Your task to perform on an android device: Show the shopping cart on costco.com. Search for macbook on costco.com, select the first entry, add it to the cart, then select checkout. Image 0: 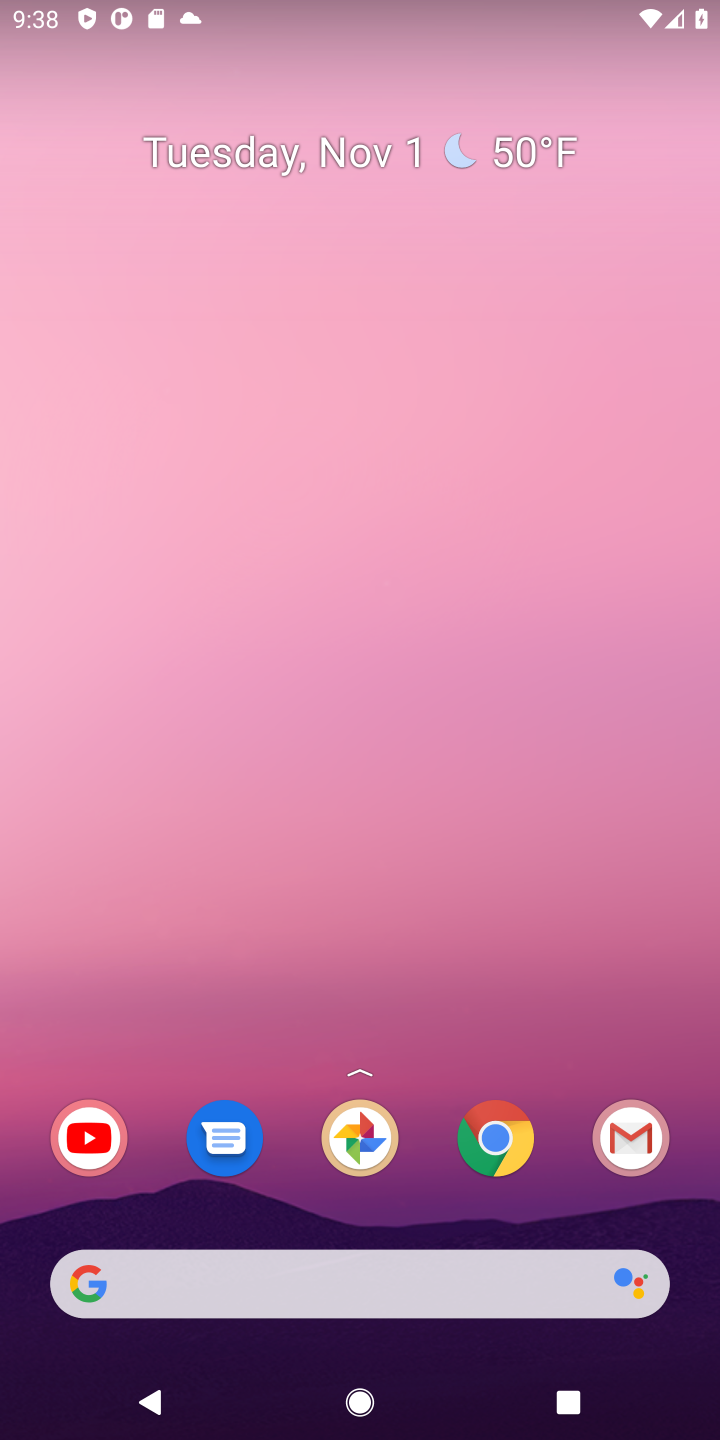
Step 0: click (498, 1141)
Your task to perform on an android device: Show the shopping cart on costco.com. Search for macbook on costco.com, select the first entry, add it to the cart, then select checkout. Image 1: 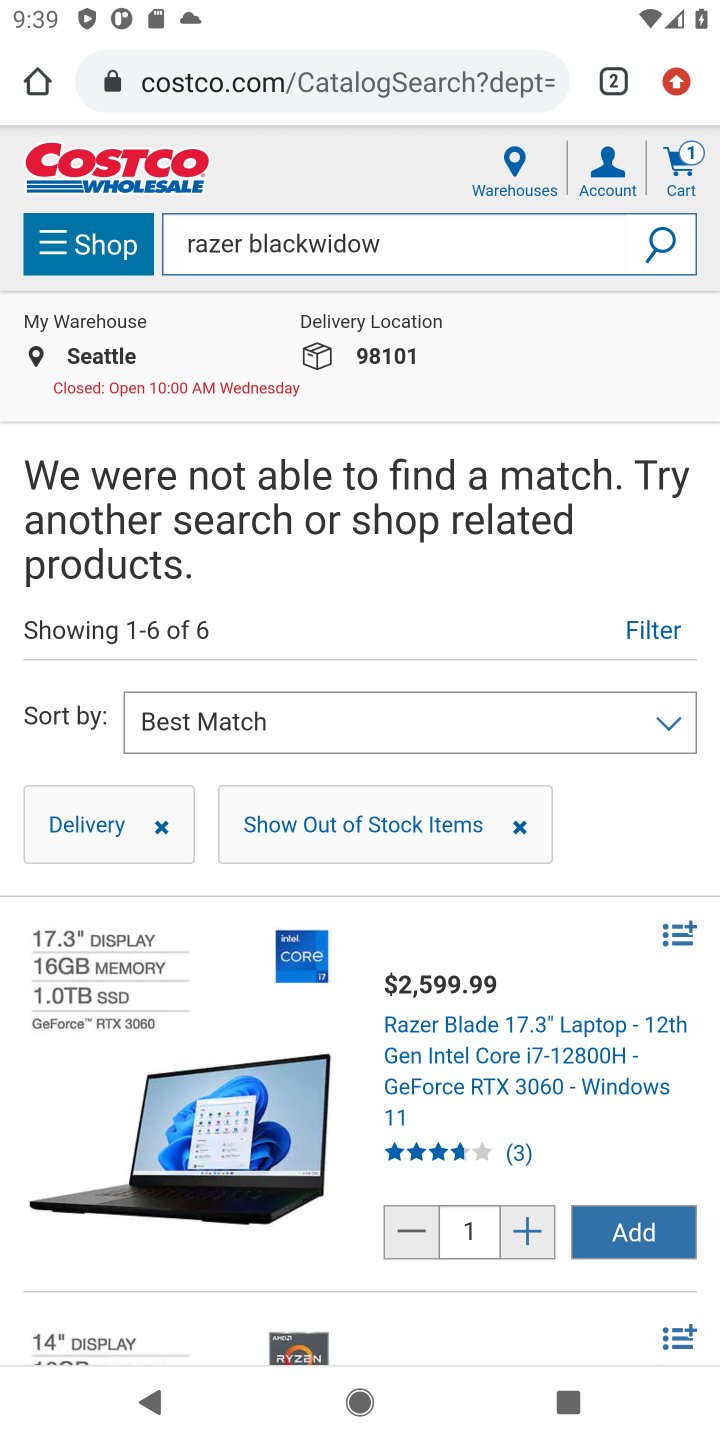
Step 1: click (317, 80)
Your task to perform on an android device: Show the shopping cart on costco.com. Search for macbook on costco.com, select the first entry, add it to the cart, then select checkout. Image 2: 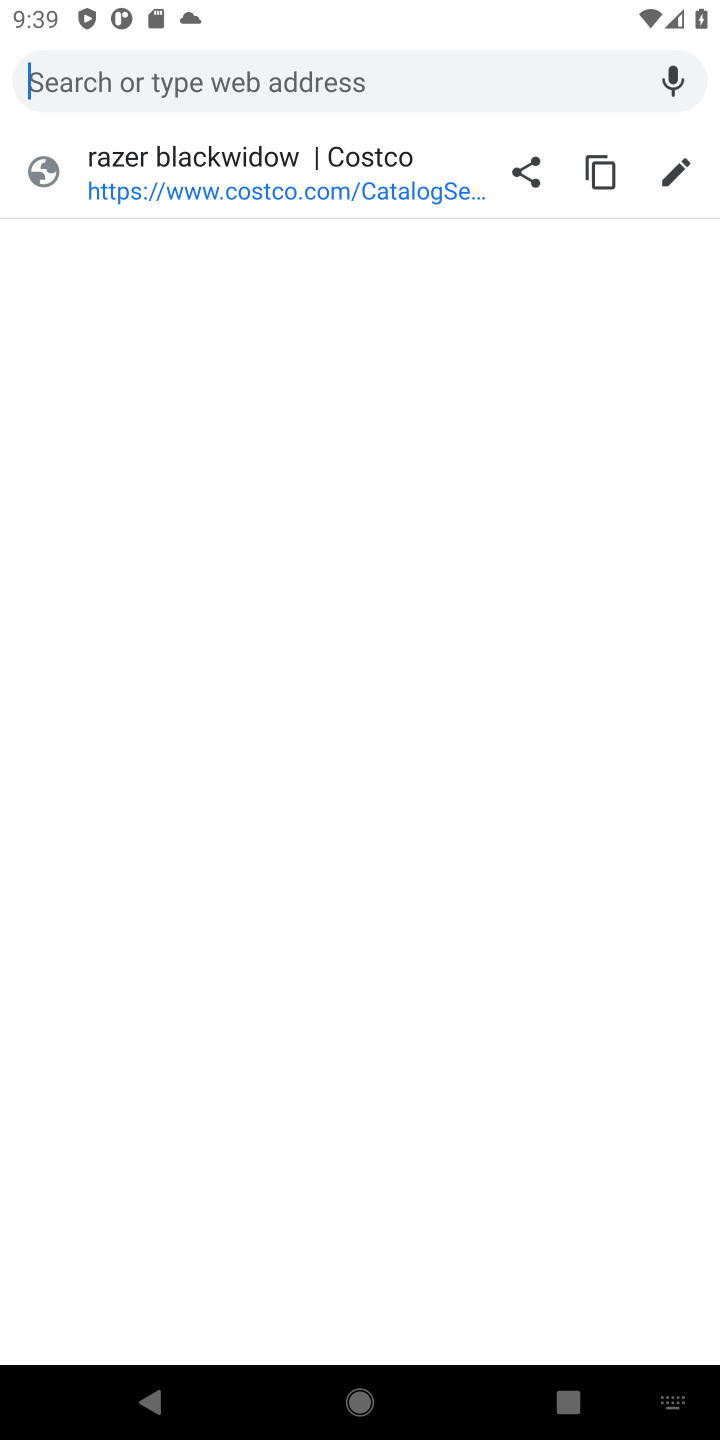
Step 2: type "costco.com"
Your task to perform on an android device: Show the shopping cart on costco.com. Search for macbook on costco.com, select the first entry, add it to the cart, then select checkout. Image 3: 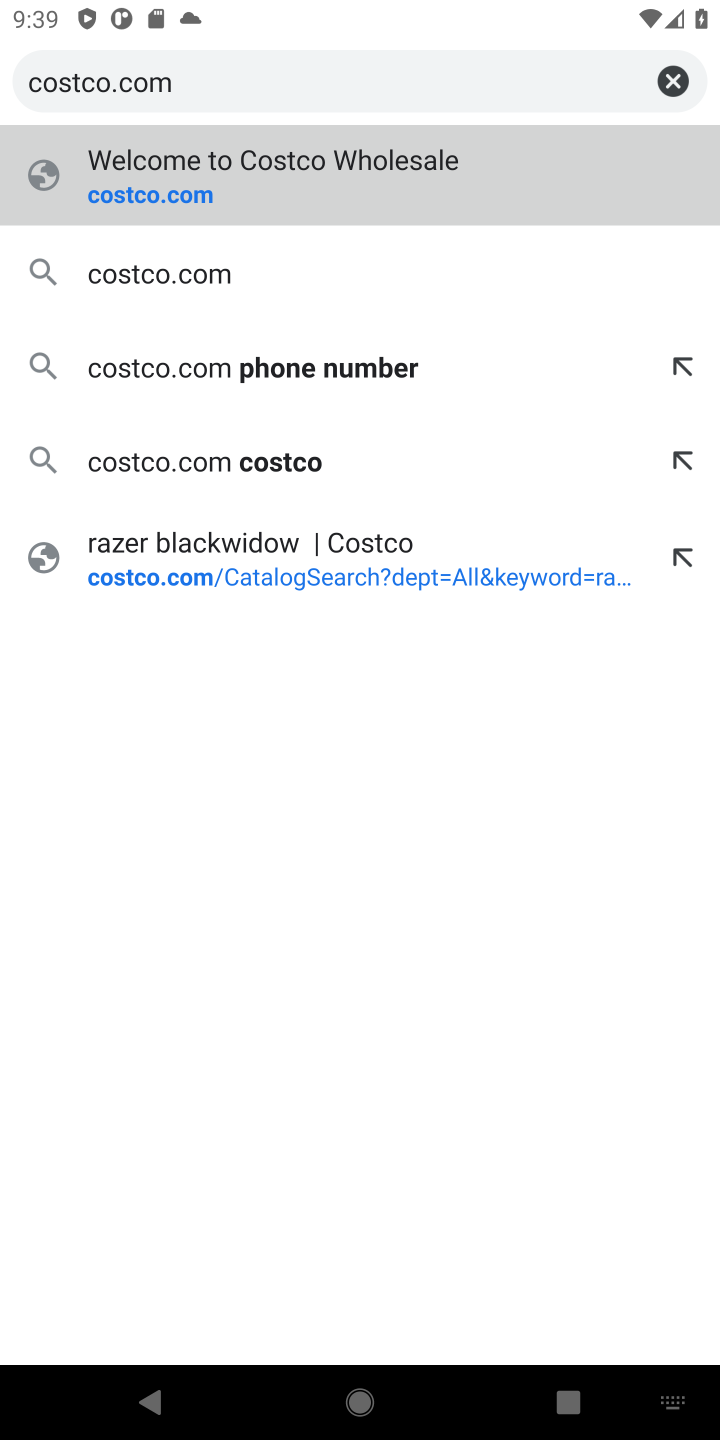
Step 3: click (180, 270)
Your task to perform on an android device: Show the shopping cart on costco.com. Search for macbook on costco.com, select the first entry, add it to the cart, then select checkout. Image 4: 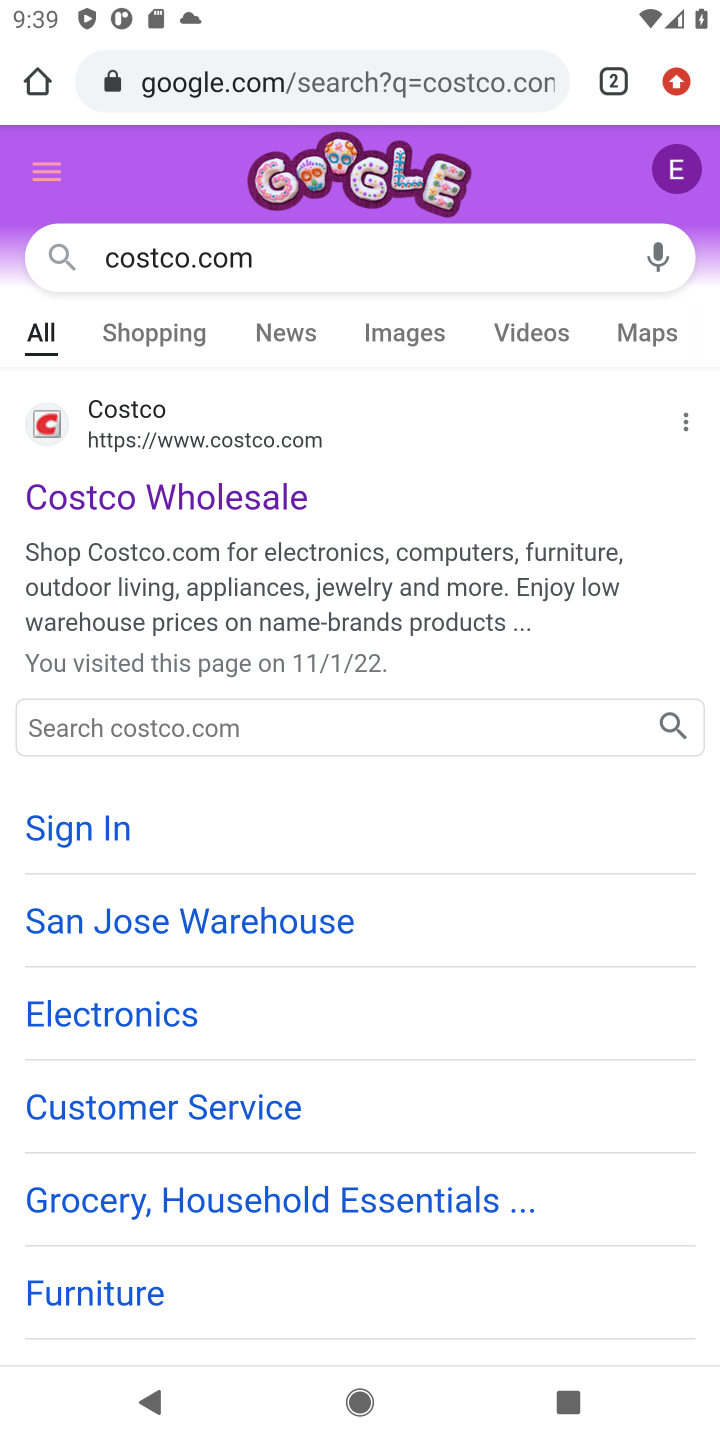
Step 4: click (233, 498)
Your task to perform on an android device: Show the shopping cart on costco.com. Search for macbook on costco.com, select the first entry, add it to the cart, then select checkout. Image 5: 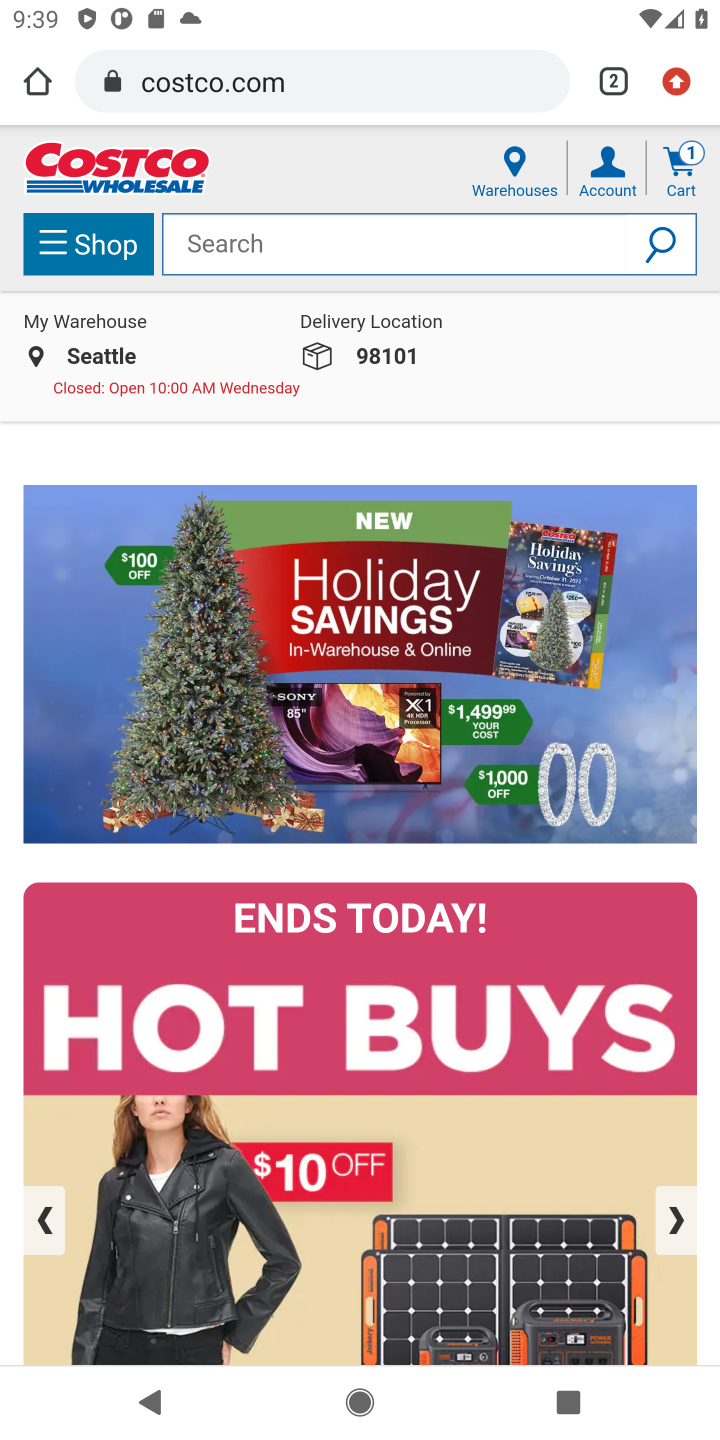
Step 5: click (685, 166)
Your task to perform on an android device: Show the shopping cart on costco.com. Search for macbook on costco.com, select the first entry, add it to the cart, then select checkout. Image 6: 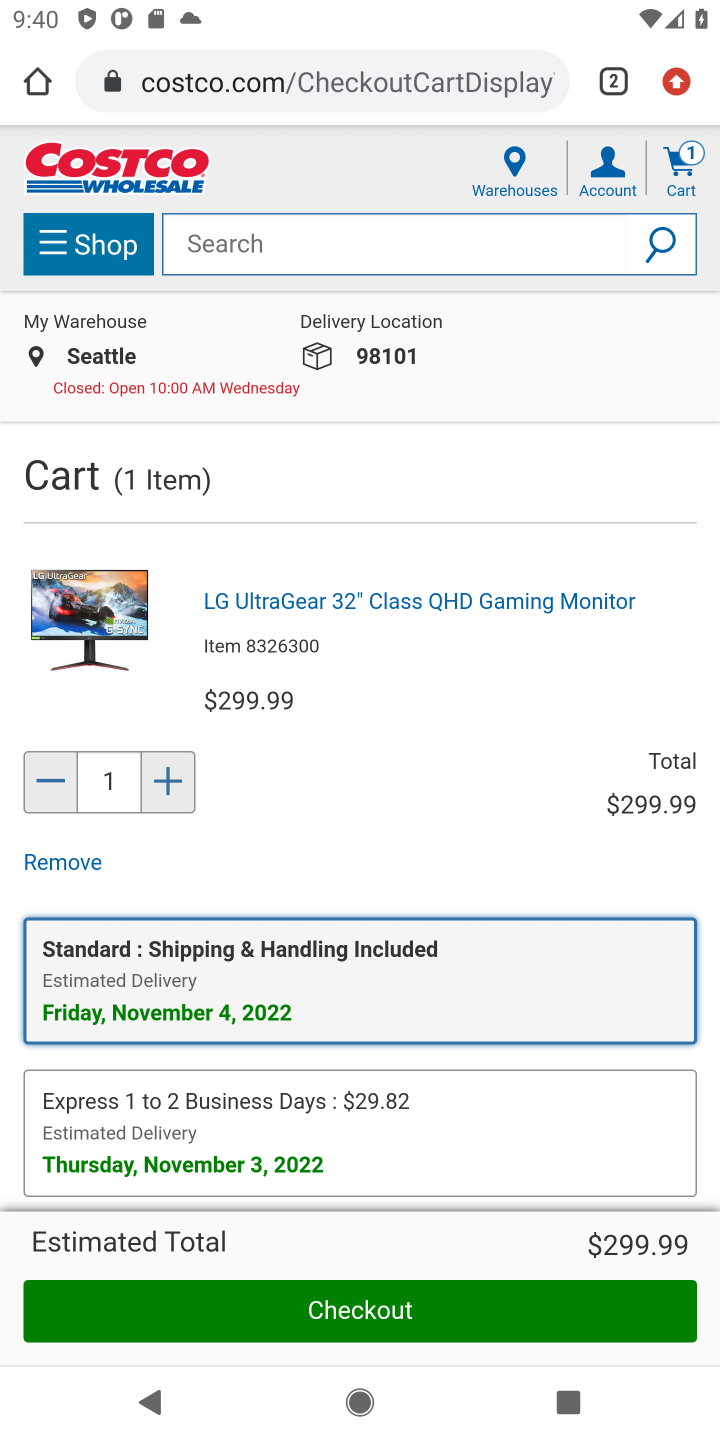
Step 6: click (285, 244)
Your task to perform on an android device: Show the shopping cart on costco.com. Search for macbook on costco.com, select the first entry, add it to the cart, then select checkout. Image 7: 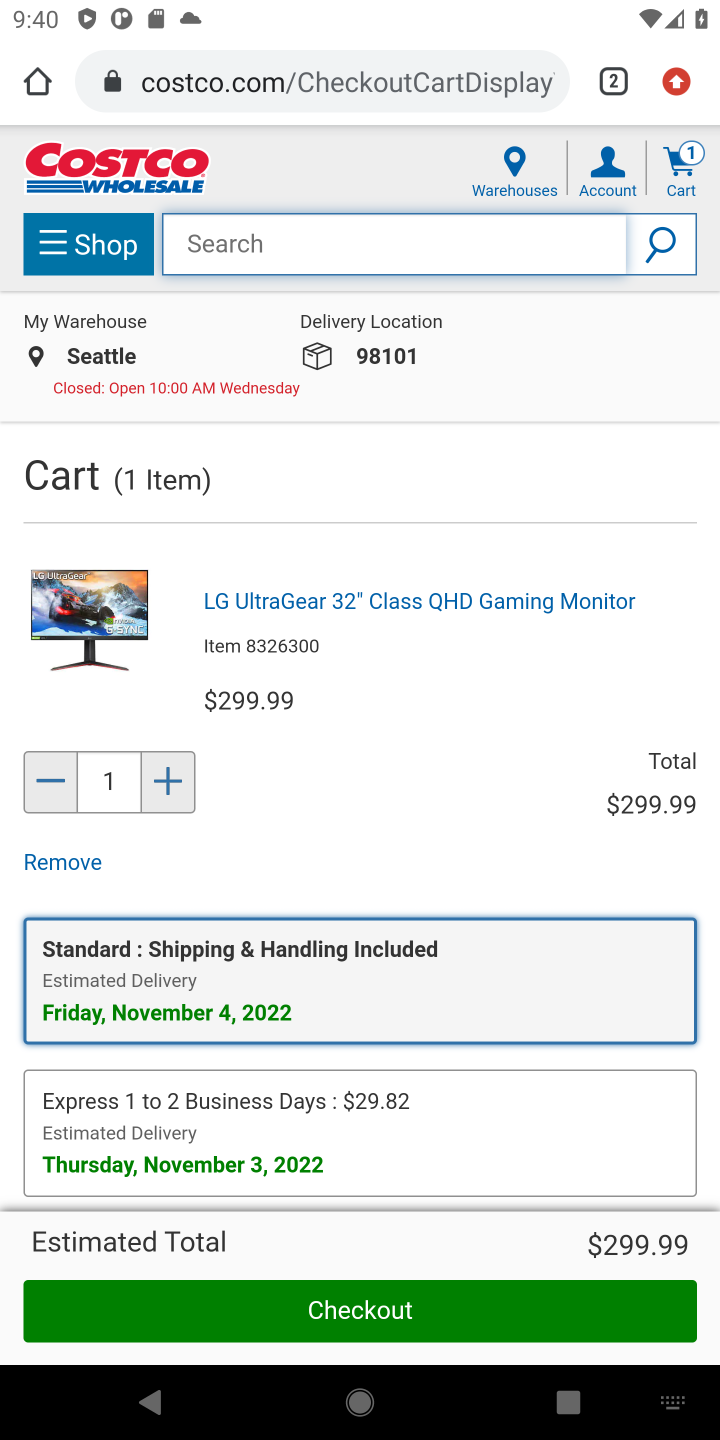
Step 7: type "macbook"
Your task to perform on an android device: Show the shopping cart on costco.com. Search for macbook on costco.com, select the first entry, add it to the cart, then select checkout. Image 8: 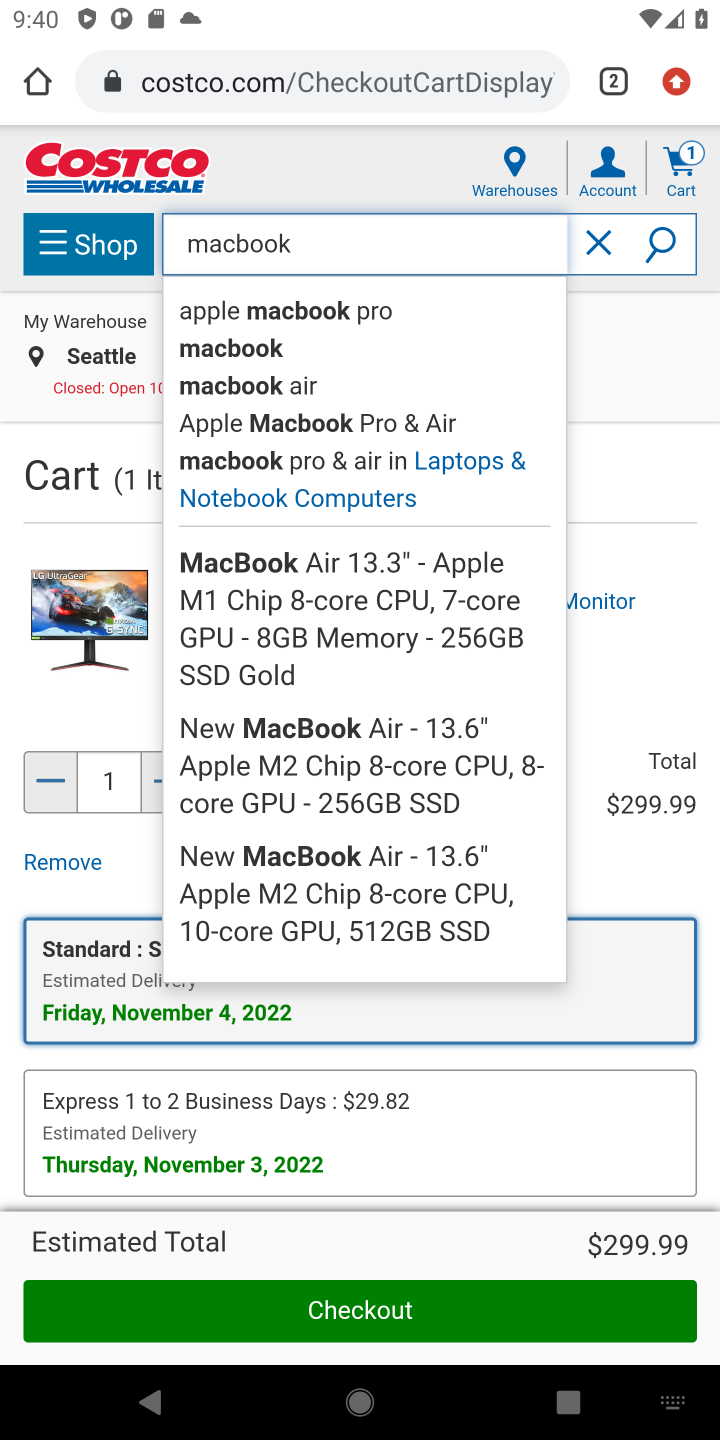
Step 8: click (665, 236)
Your task to perform on an android device: Show the shopping cart on costco.com. Search for macbook on costco.com, select the first entry, add it to the cart, then select checkout. Image 9: 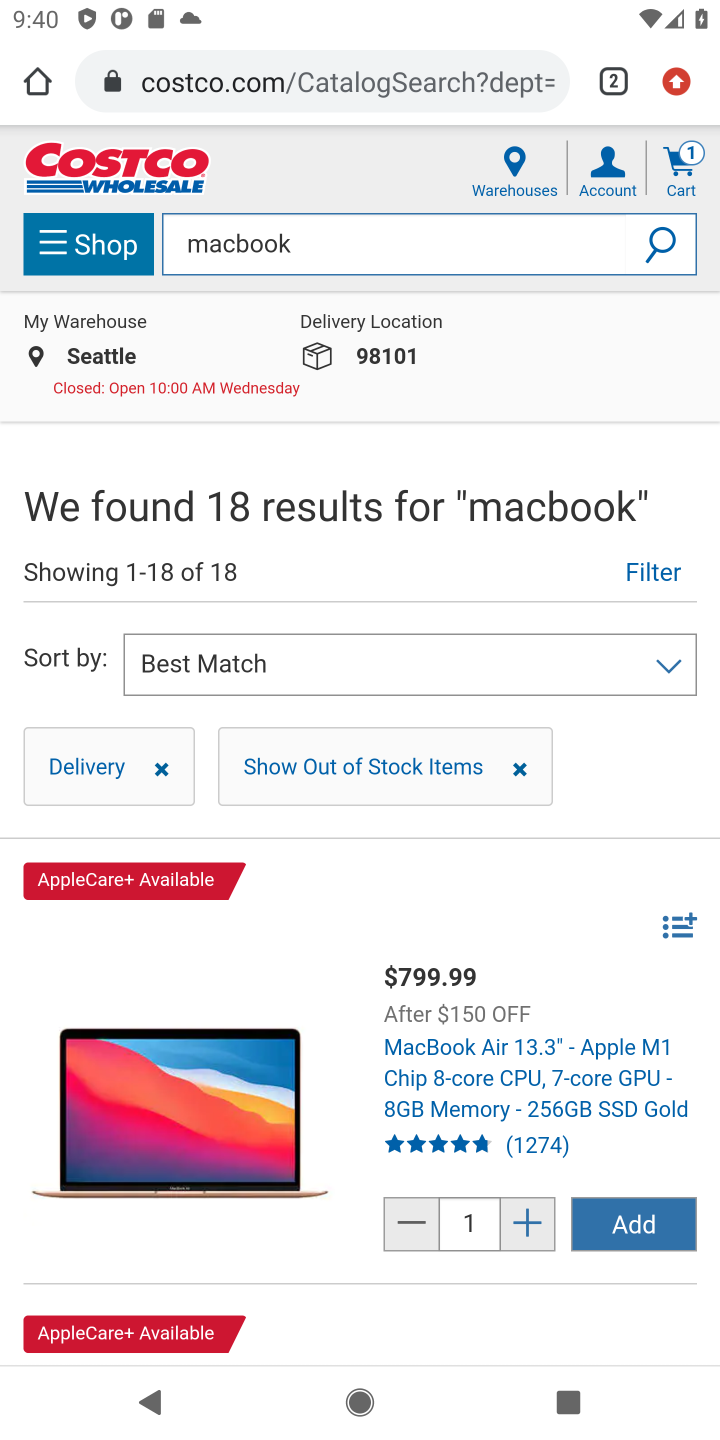
Step 9: click (625, 1232)
Your task to perform on an android device: Show the shopping cart on costco.com. Search for macbook on costco.com, select the first entry, add it to the cart, then select checkout. Image 10: 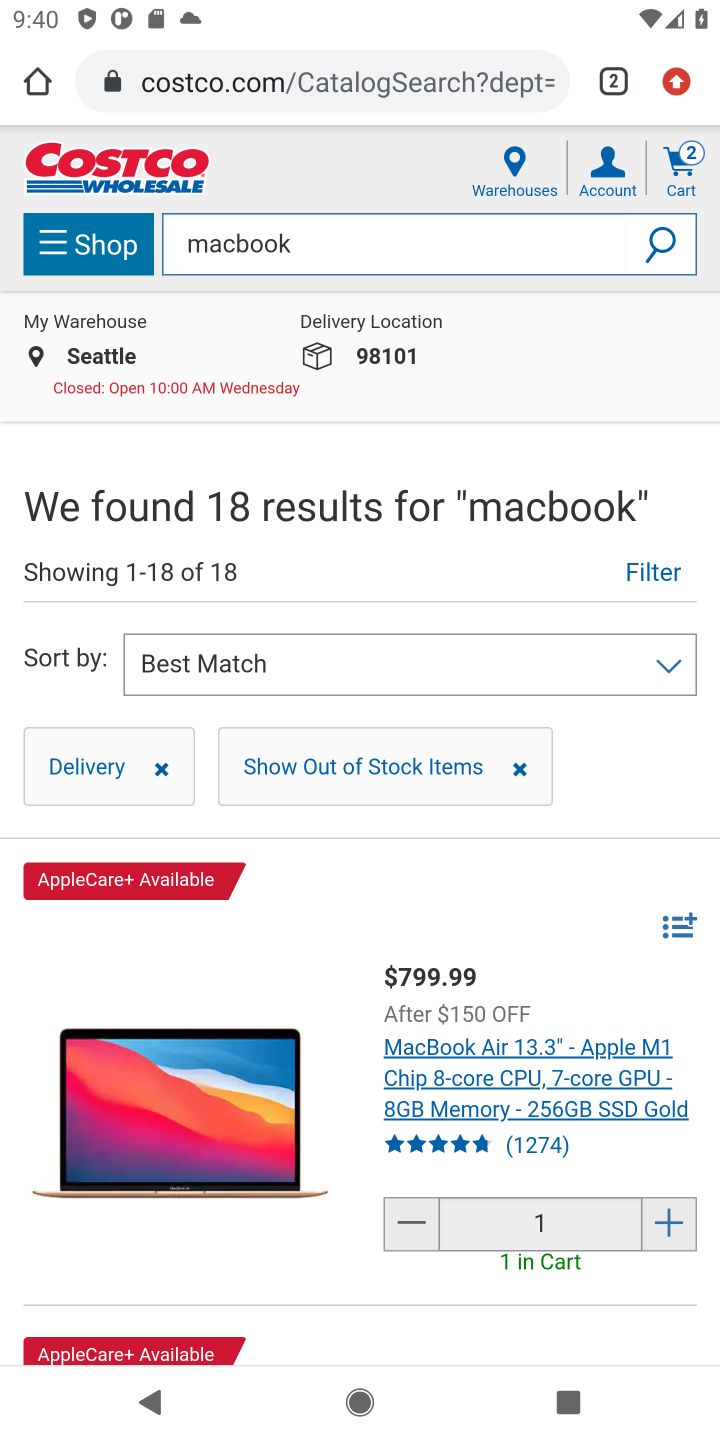
Step 10: click (685, 160)
Your task to perform on an android device: Show the shopping cart on costco.com. Search for macbook on costco.com, select the first entry, add it to the cart, then select checkout. Image 11: 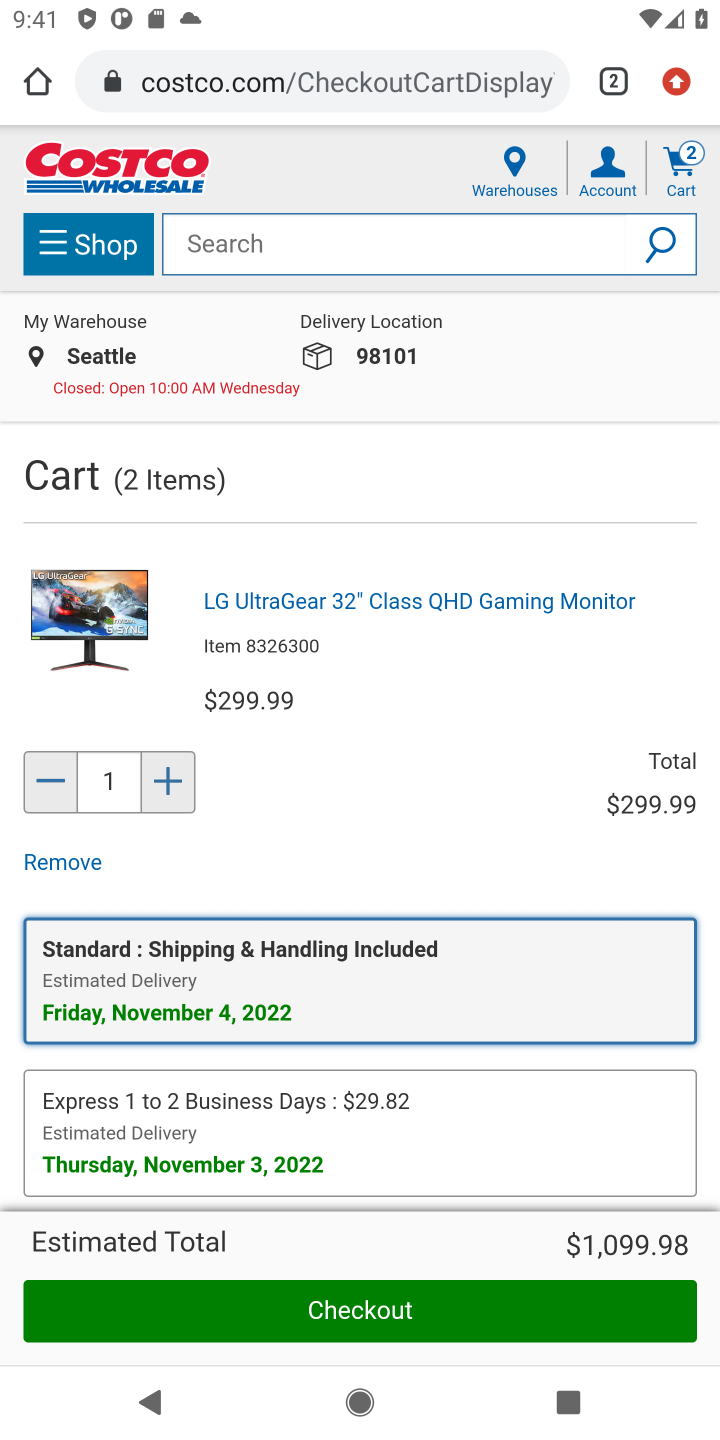
Step 11: click (366, 1311)
Your task to perform on an android device: Show the shopping cart on costco.com. Search for macbook on costco.com, select the first entry, add it to the cart, then select checkout. Image 12: 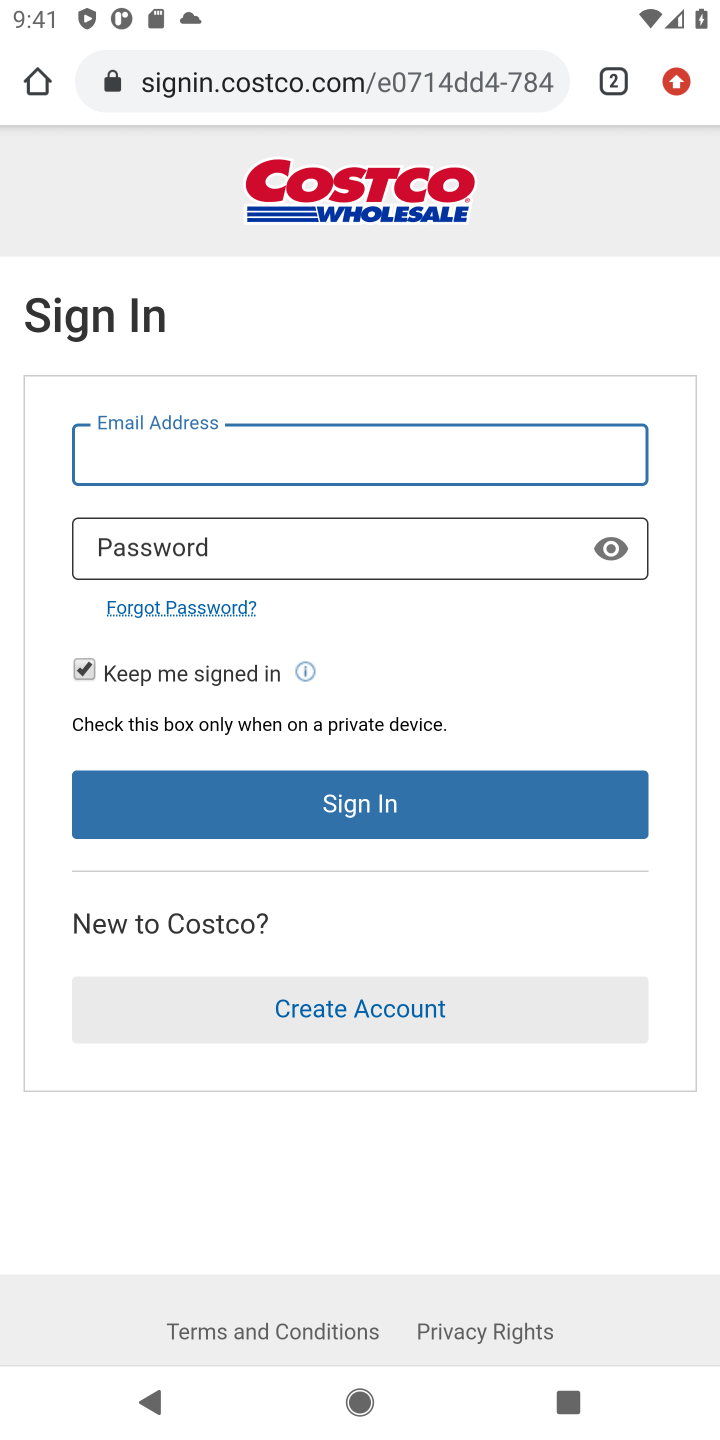
Step 12: task complete